Your task to perform on an android device: set the timer Image 0: 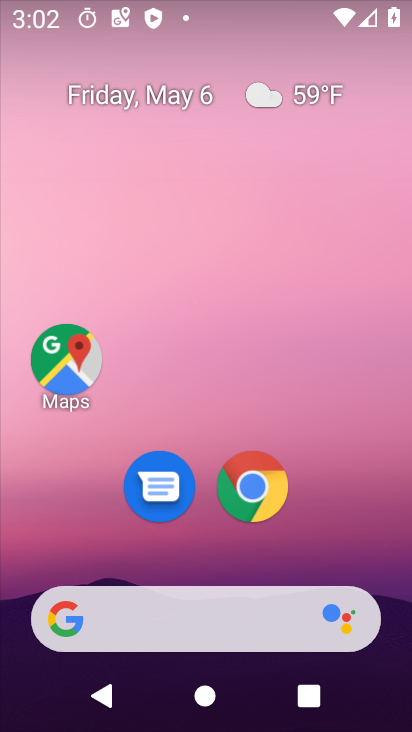
Step 0: drag from (325, 524) to (235, 39)
Your task to perform on an android device: set the timer Image 1: 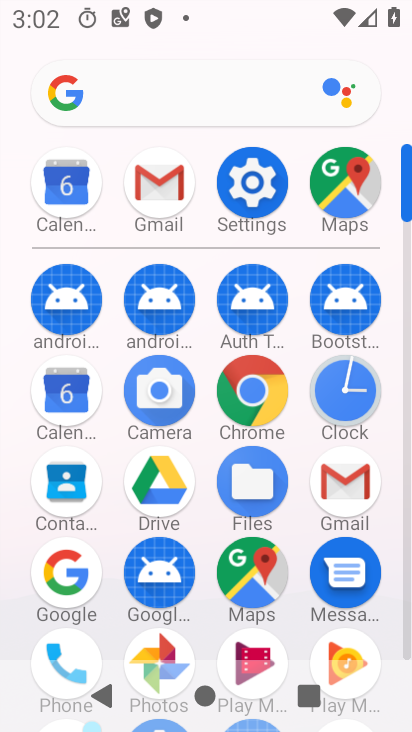
Step 1: click (350, 392)
Your task to perform on an android device: set the timer Image 2: 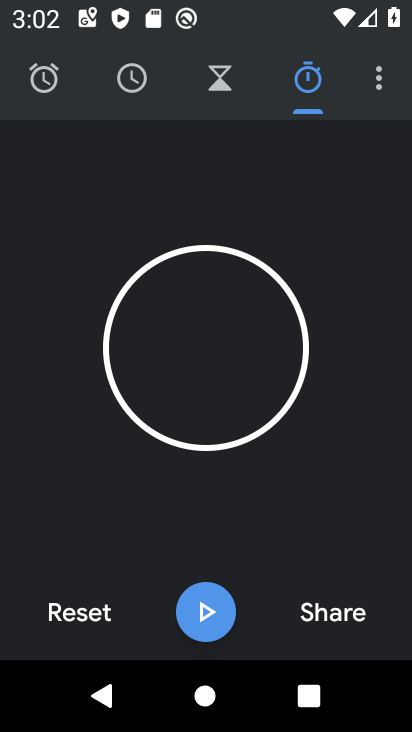
Step 2: click (383, 79)
Your task to perform on an android device: set the timer Image 3: 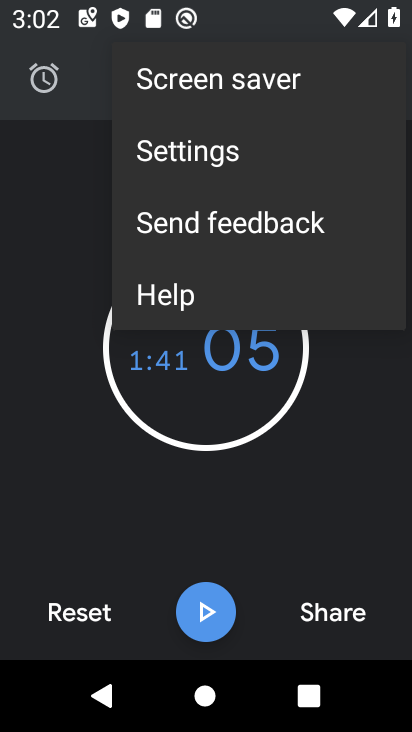
Step 3: click (326, 385)
Your task to perform on an android device: set the timer Image 4: 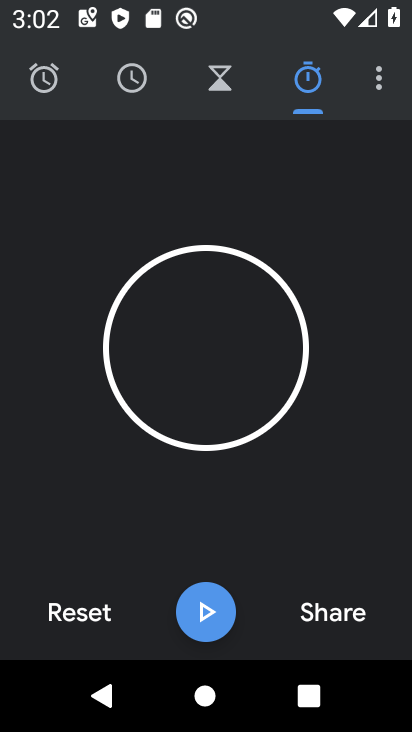
Step 4: click (223, 79)
Your task to perform on an android device: set the timer Image 5: 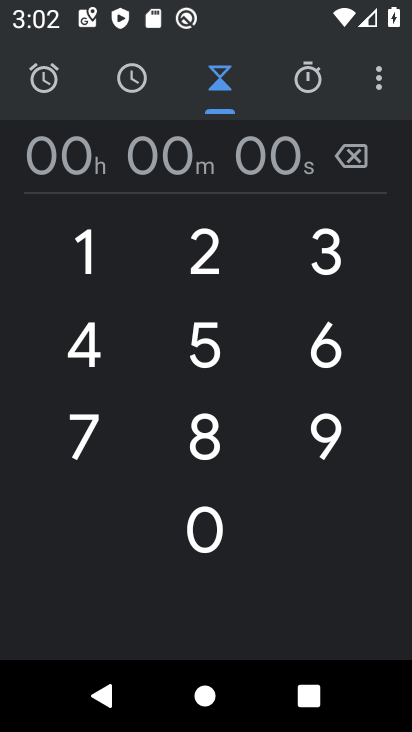
Step 5: click (90, 241)
Your task to perform on an android device: set the timer Image 6: 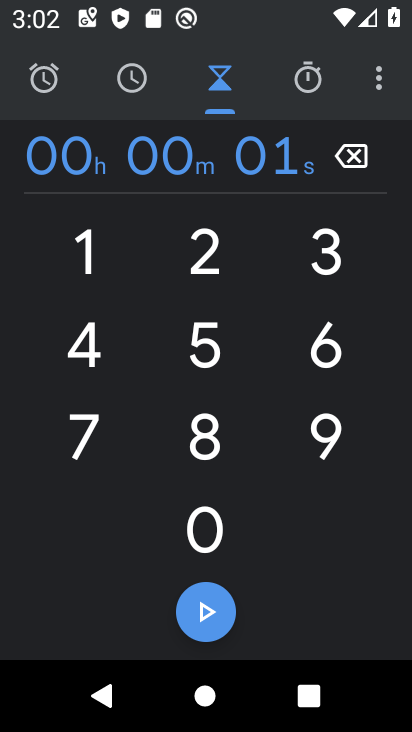
Step 6: click (90, 241)
Your task to perform on an android device: set the timer Image 7: 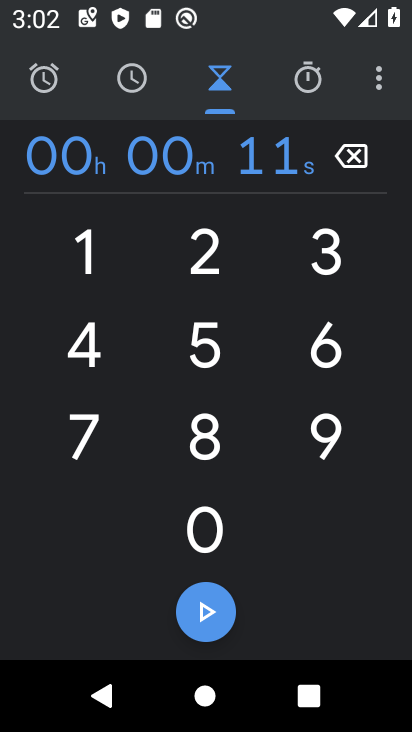
Step 7: click (90, 241)
Your task to perform on an android device: set the timer Image 8: 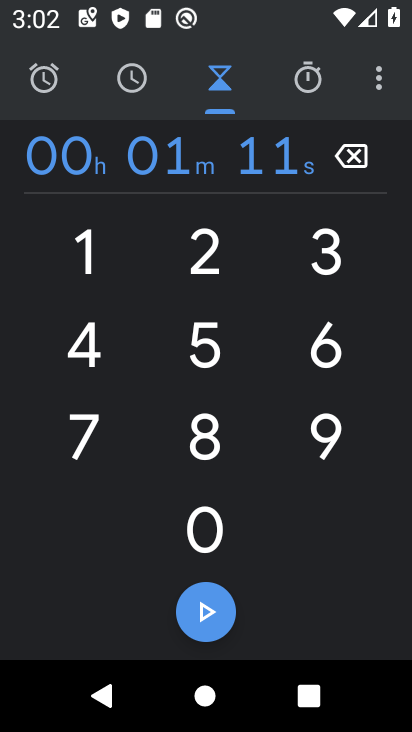
Step 8: click (90, 241)
Your task to perform on an android device: set the timer Image 9: 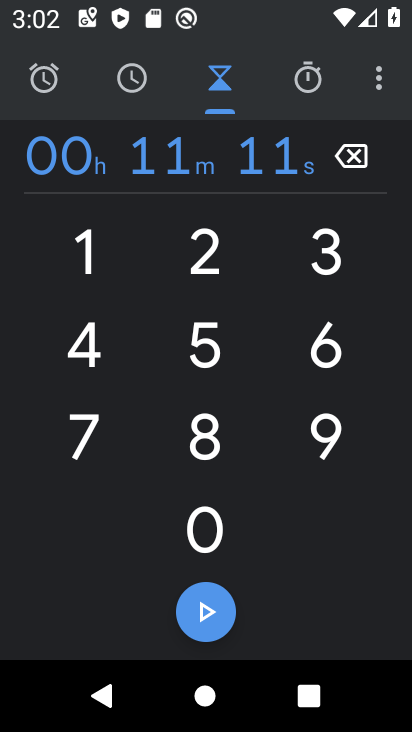
Step 9: click (90, 241)
Your task to perform on an android device: set the timer Image 10: 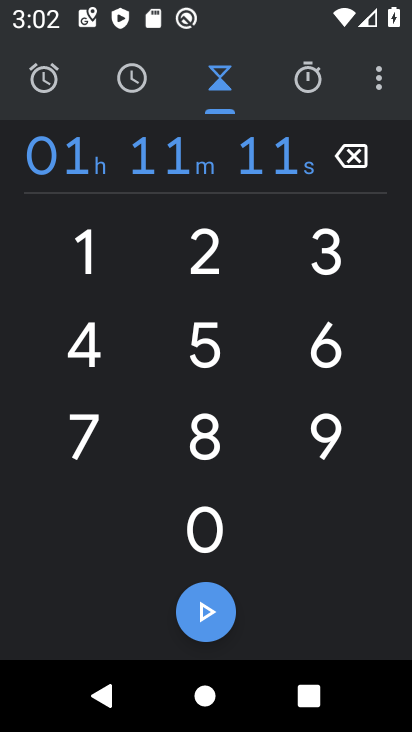
Step 10: task complete